Your task to perform on an android device: turn off improve location accuracy Image 0: 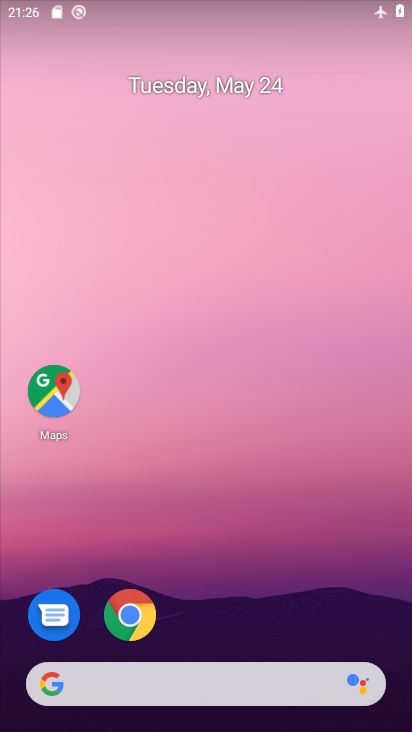
Step 0: drag from (347, 509) to (310, 224)
Your task to perform on an android device: turn off improve location accuracy Image 1: 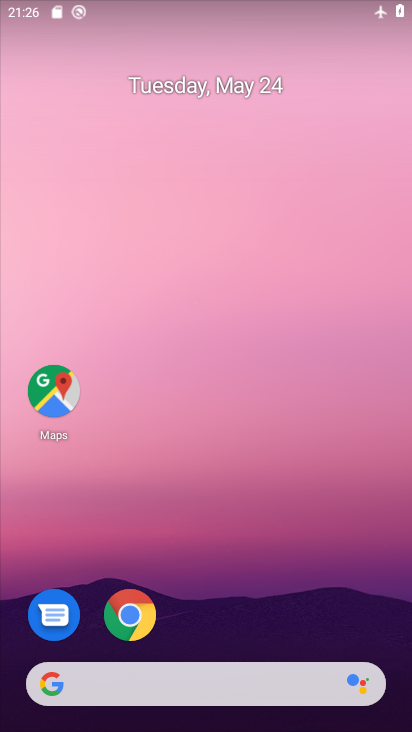
Step 1: drag from (212, 600) to (268, 240)
Your task to perform on an android device: turn off improve location accuracy Image 2: 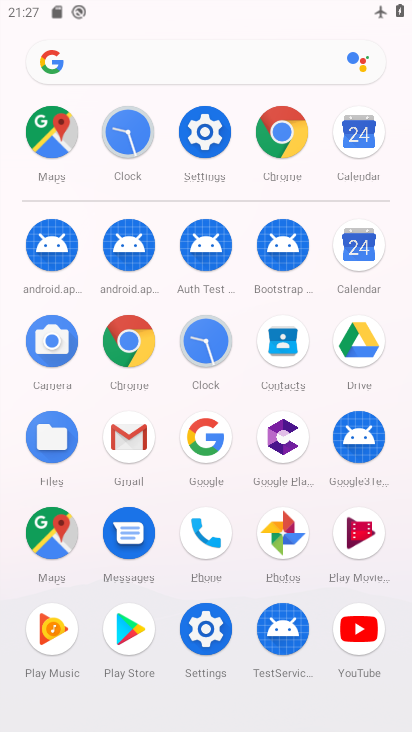
Step 2: click (211, 122)
Your task to perform on an android device: turn off improve location accuracy Image 3: 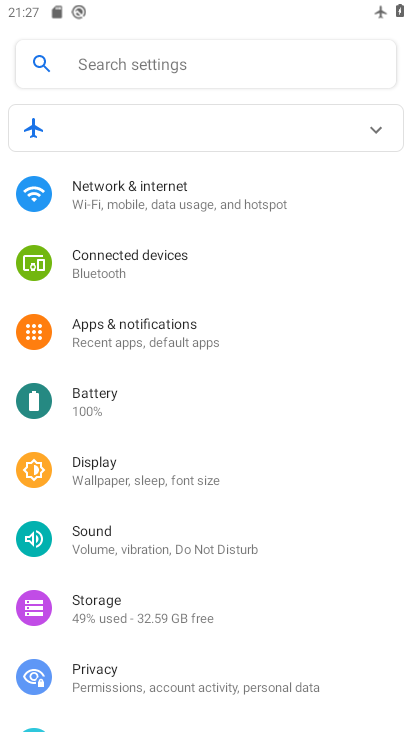
Step 3: drag from (177, 593) to (218, 290)
Your task to perform on an android device: turn off improve location accuracy Image 4: 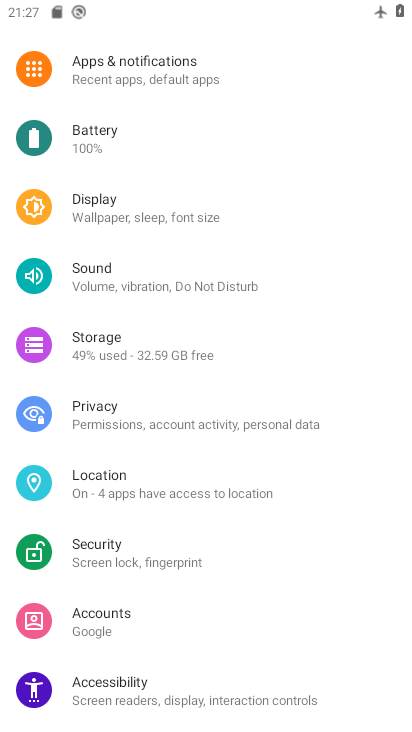
Step 4: click (167, 494)
Your task to perform on an android device: turn off improve location accuracy Image 5: 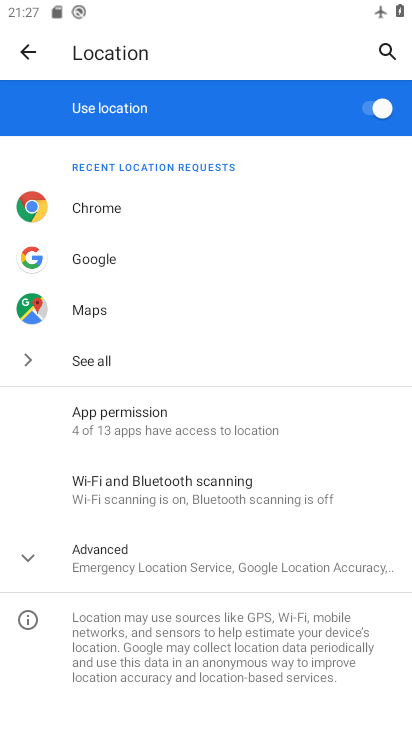
Step 5: click (204, 559)
Your task to perform on an android device: turn off improve location accuracy Image 6: 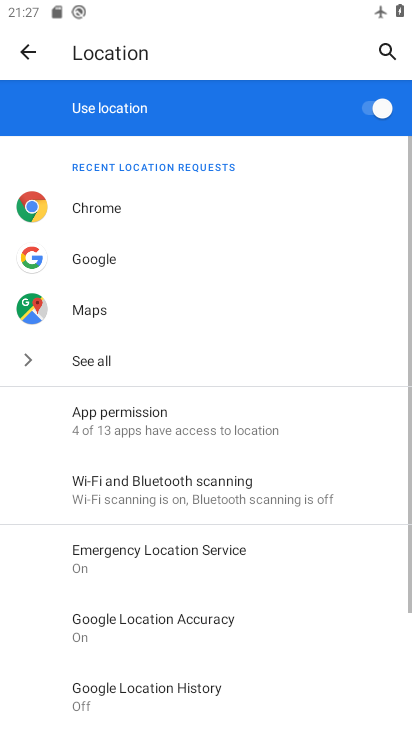
Step 6: drag from (166, 679) to (224, 481)
Your task to perform on an android device: turn off improve location accuracy Image 7: 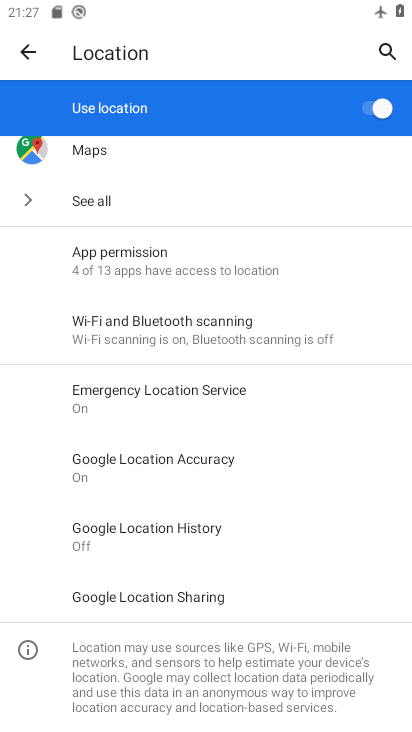
Step 7: click (198, 459)
Your task to perform on an android device: turn off improve location accuracy Image 8: 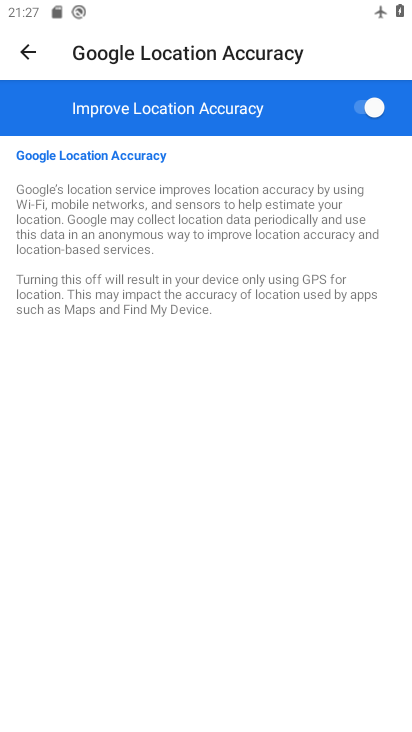
Step 8: click (354, 102)
Your task to perform on an android device: turn off improve location accuracy Image 9: 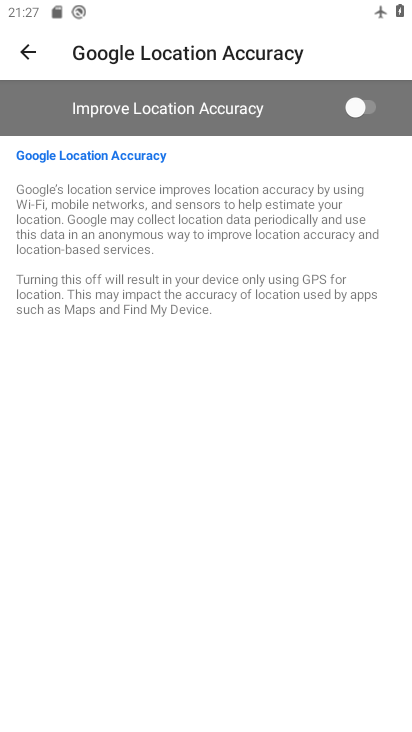
Step 9: task complete